Your task to perform on an android device: Go to eBay Image 0: 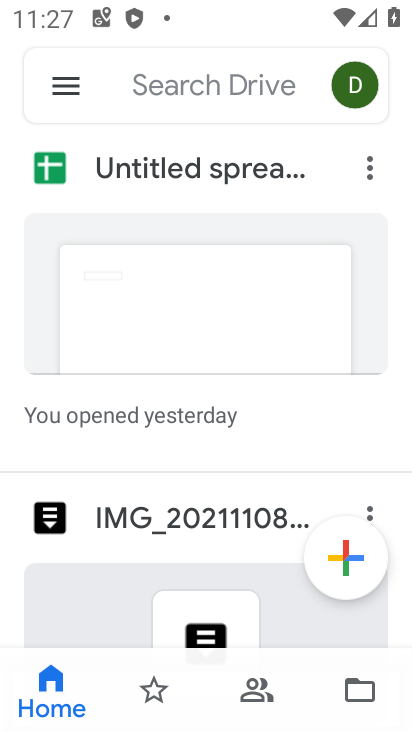
Step 0: press home button
Your task to perform on an android device: Go to eBay Image 1: 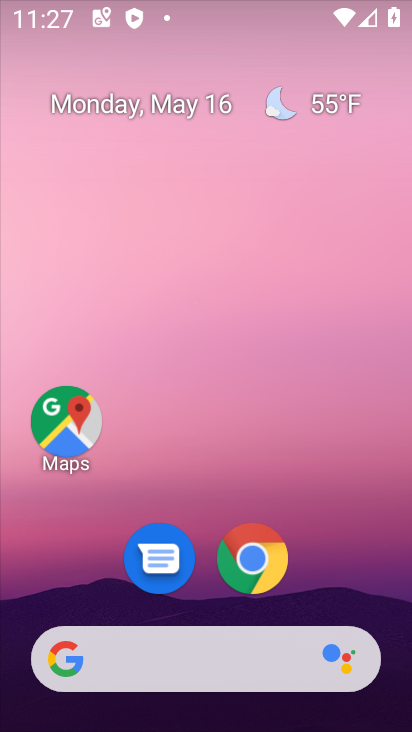
Step 1: drag from (197, 505) to (219, 73)
Your task to perform on an android device: Go to eBay Image 2: 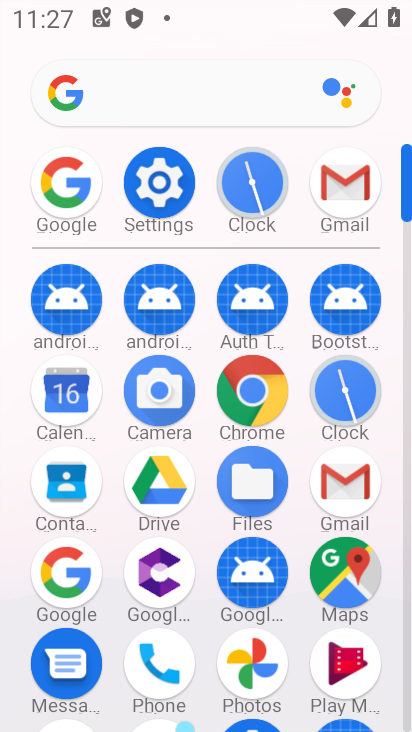
Step 2: click (62, 185)
Your task to perform on an android device: Go to eBay Image 3: 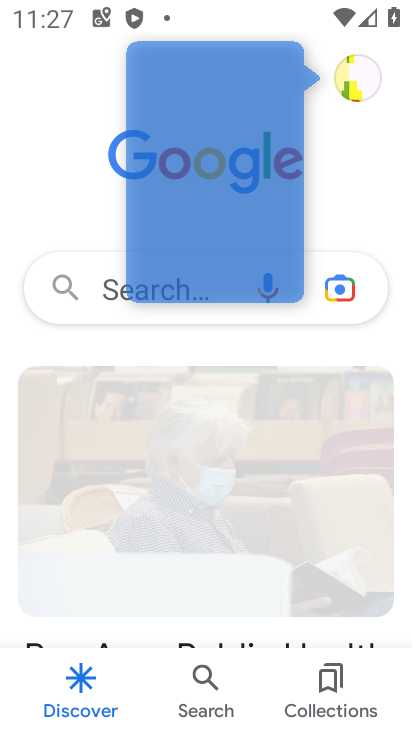
Step 3: click (144, 285)
Your task to perform on an android device: Go to eBay Image 4: 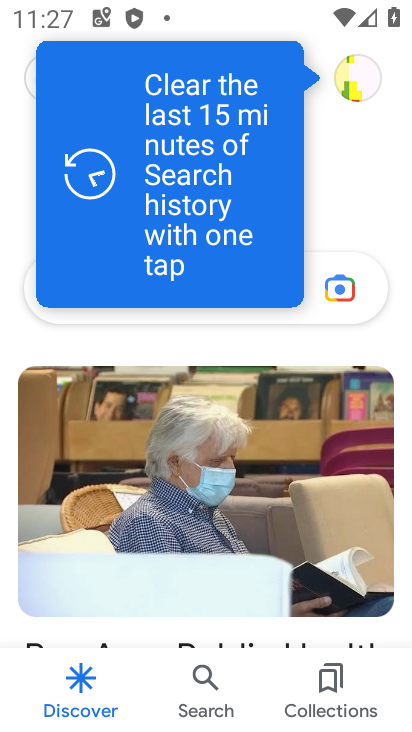
Step 4: click (205, 318)
Your task to perform on an android device: Go to eBay Image 5: 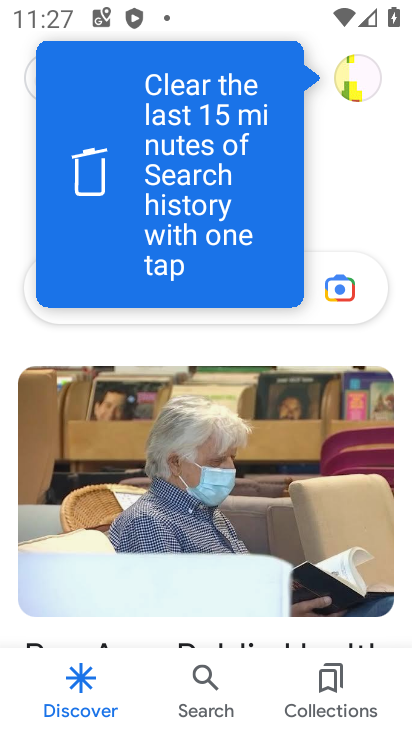
Step 5: click (363, 130)
Your task to perform on an android device: Go to eBay Image 6: 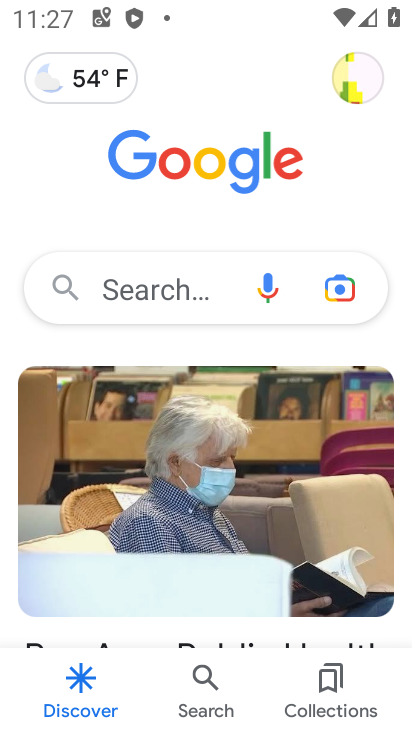
Step 6: click (141, 276)
Your task to perform on an android device: Go to eBay Image 7: 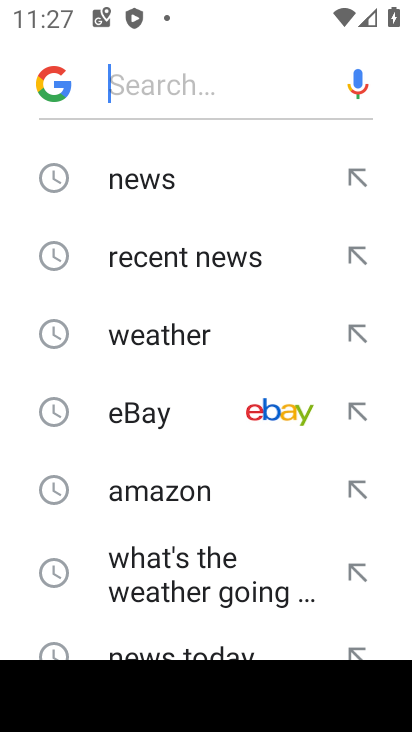
Step 7: click (154, 412)
Your task to perform on an android device: Go to eBay Image 8: 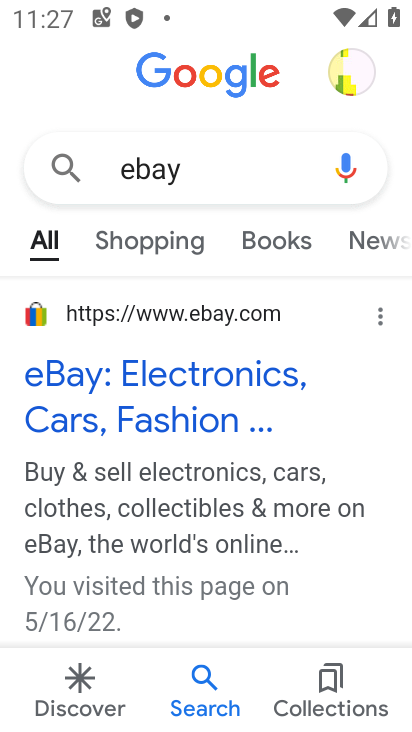
Step 8: task complete